Your task to perform on an android device: manage bookmarks in the chrome app Image 0: 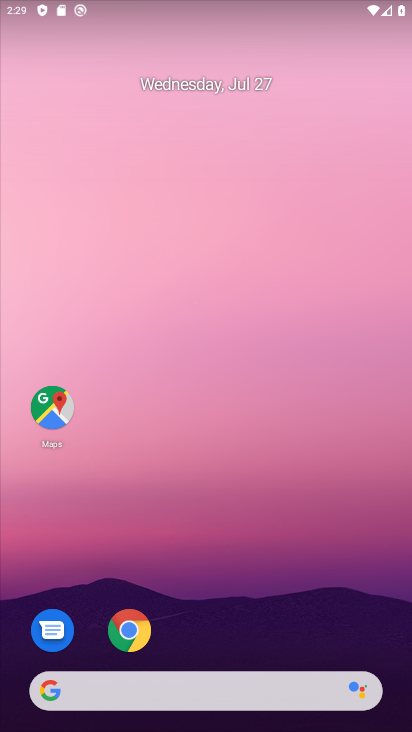
Step 0: press home button
Your task to perform on an android device: manage bookmarks in the chrome app Image 1: 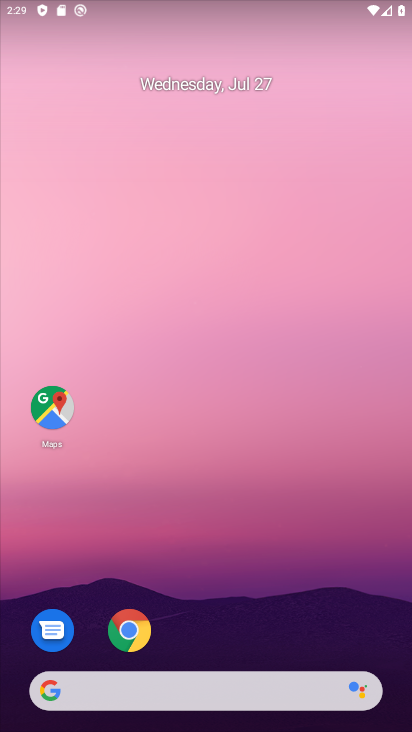
Step 1: press home button
Your task to perform on an android device: manage bookmarks in the chrome app Image 2: 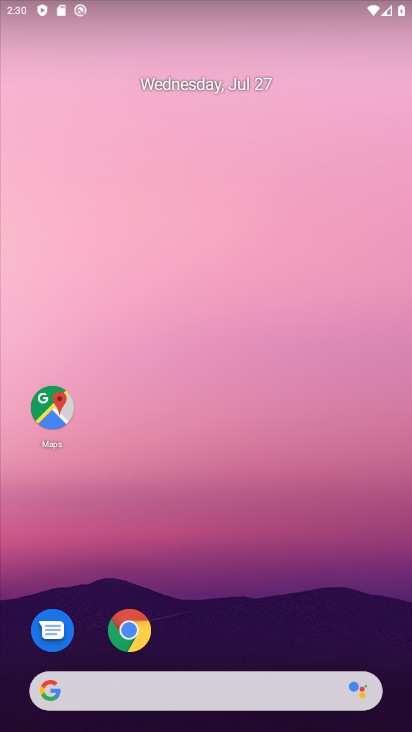
Step 2: drag from (227, 636) to (203, 117)
Your task to perform on an android device: manage bookmarks in the chrome app Image 3: 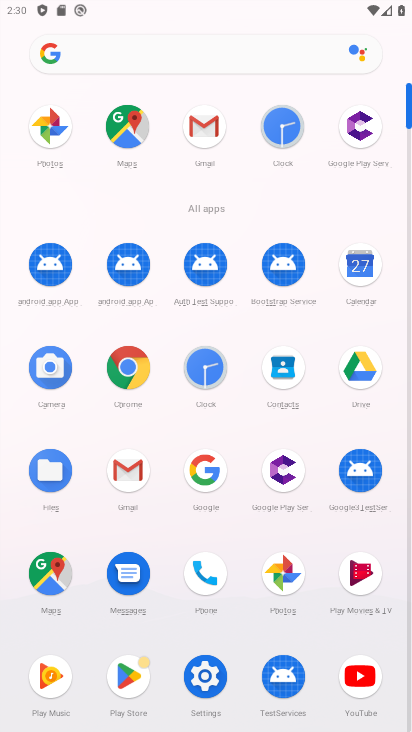
Step 3: click (131, 354)
Your task to perform on an android device: manage bookmarks in the chrome app Image 4: 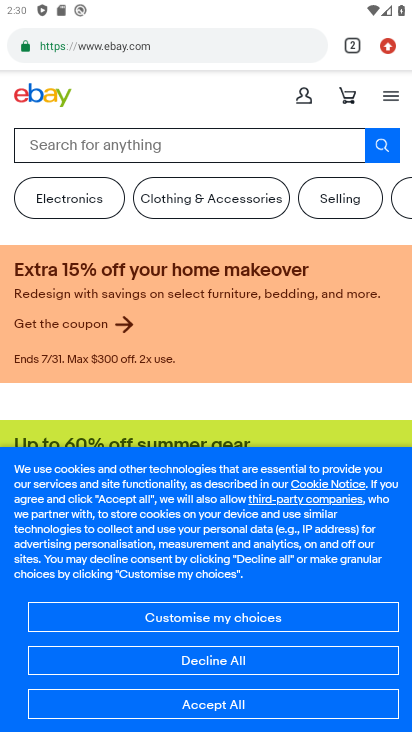
Step 4: drag from (389, 44) to (258, 226)
Your task to perform on an android device: manage bookmarks in the chrome app Image 5: 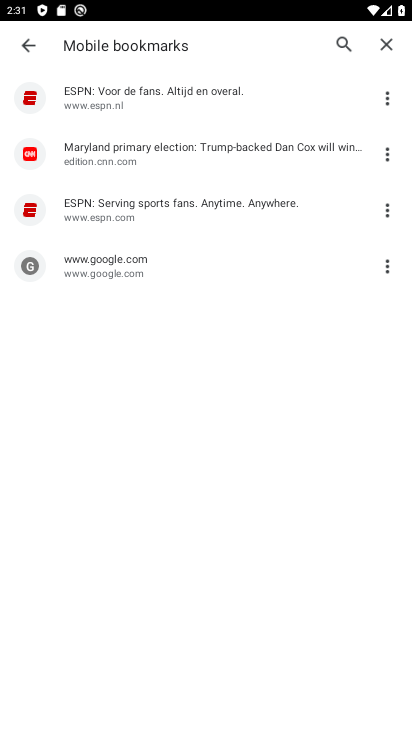
Step 5: click (388, 103)
Your task to perform on an android device: manage bookmarks in the chrome app Image 6: 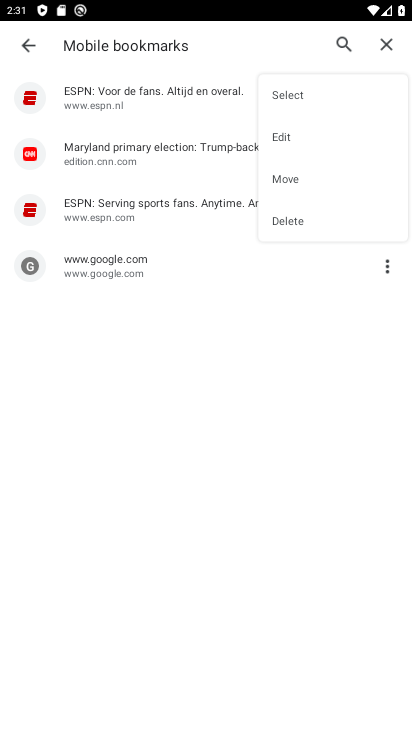
Step 6: click (281, 138)
Your task to perform on an android device: manage bookmarks in the chrome app Image 7: 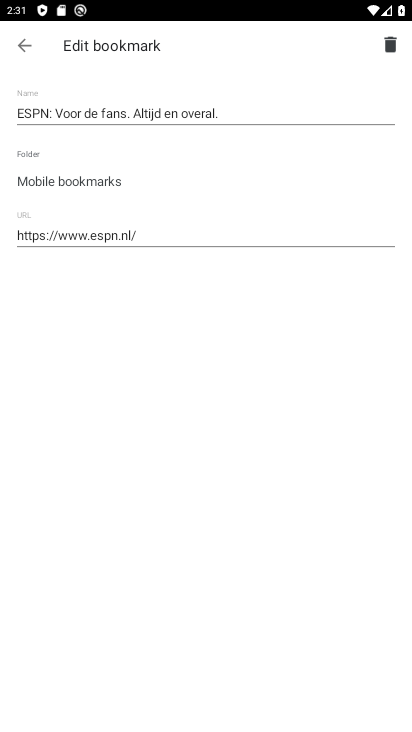
Step 7: task complete